Your task to perform on an android device: Search for Mexican restaurants on Maps Image 0: 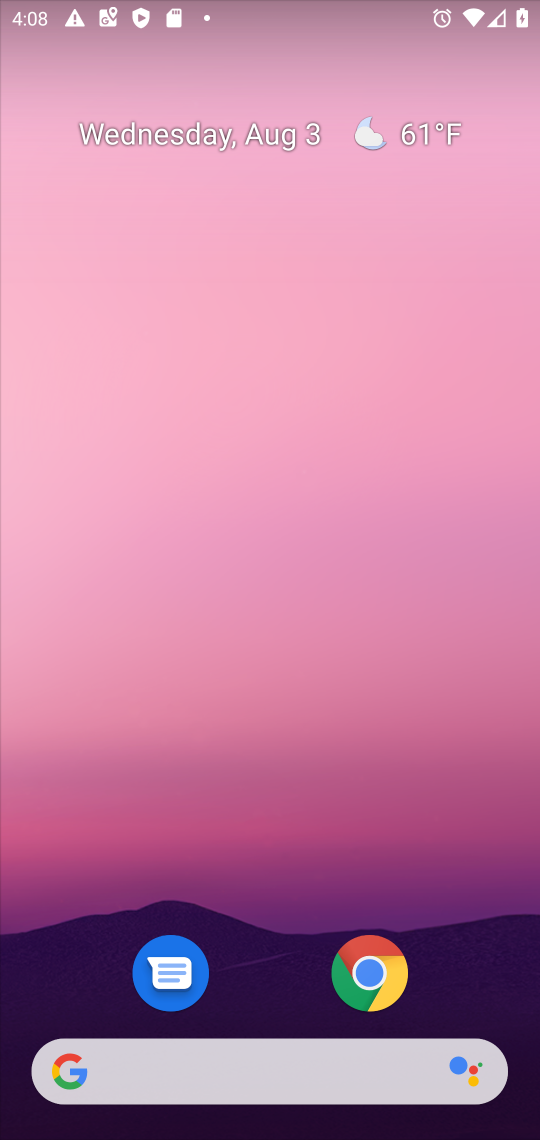
Step 0: drag from (238, 886) to (312, 61)
Your task to perform on an android device: Search for Mexican restaurants on Maps Image 1: 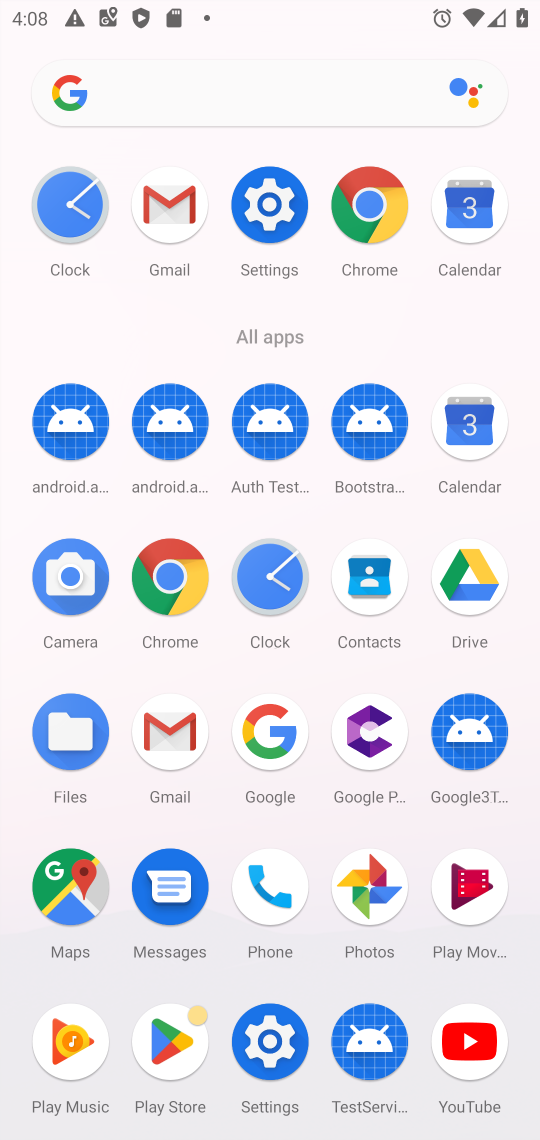
Step 1: click (74, 861)
Your task to perform on an android device: Search for Mexican restaurants on Maps Image 2: 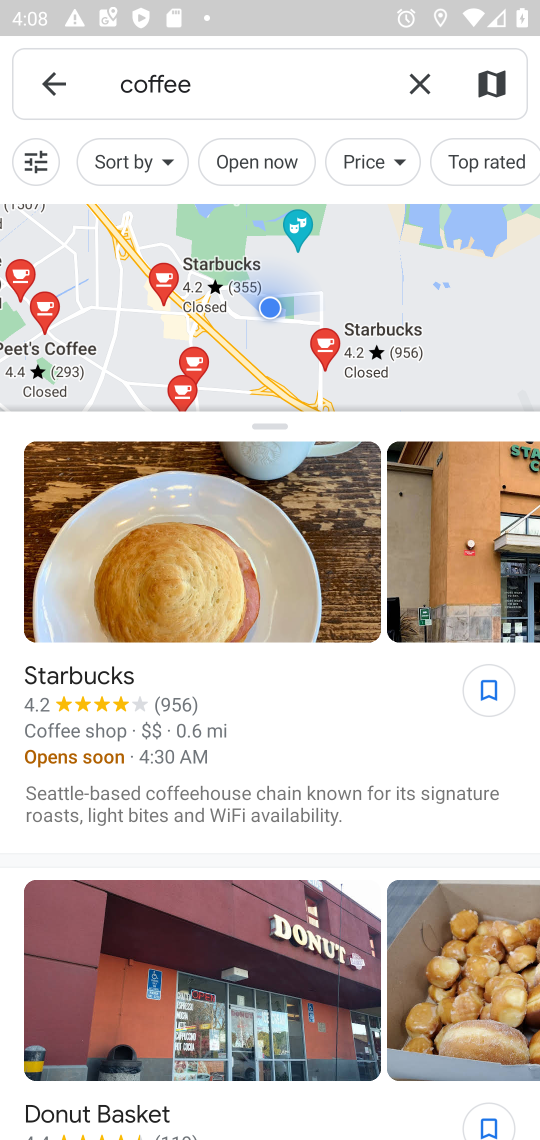
Step 2: click (422, 75)
Your task to perform on an android device: Search for Mexican restaurants on Maps Image 3: 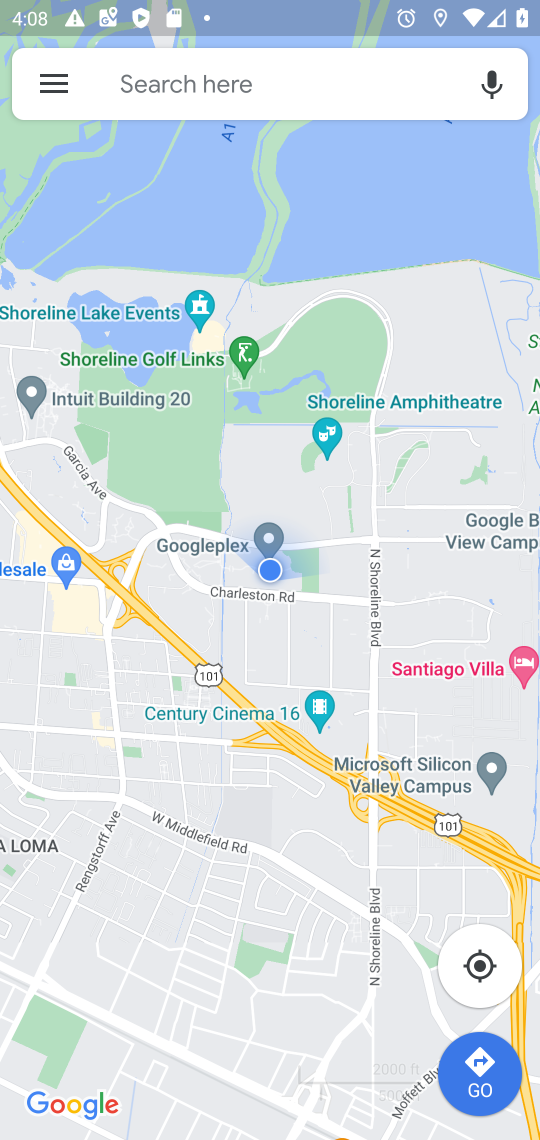
Step 3: click (352, 83)
Your task to perform on an android device: Search for Mexican restaurants on Maps Image 4: 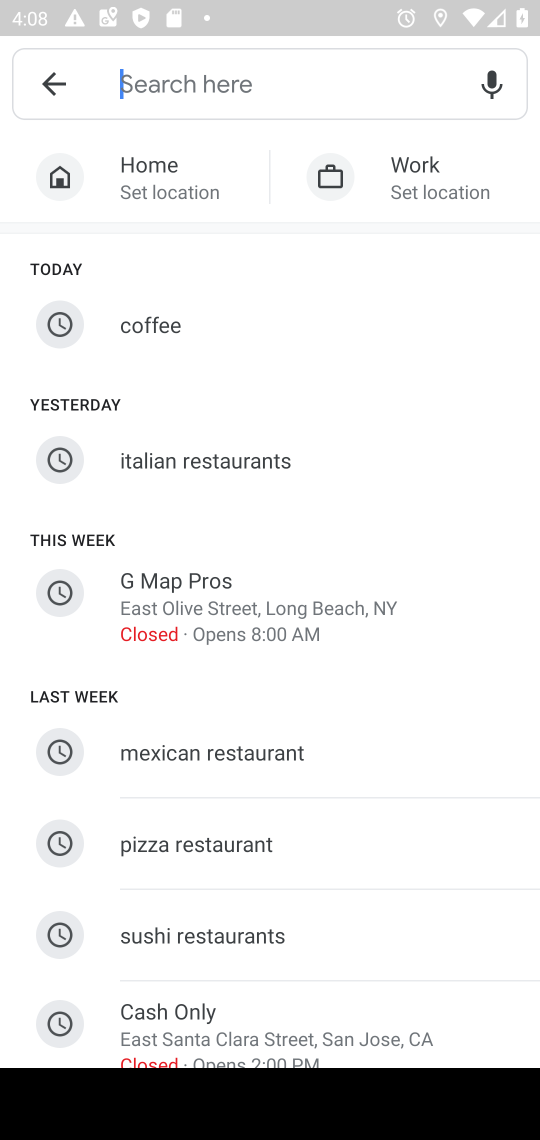
Step 4: click (252, 744)
Your task to perform on an android device: Search for Mexican restaurants on Maps Image 5: 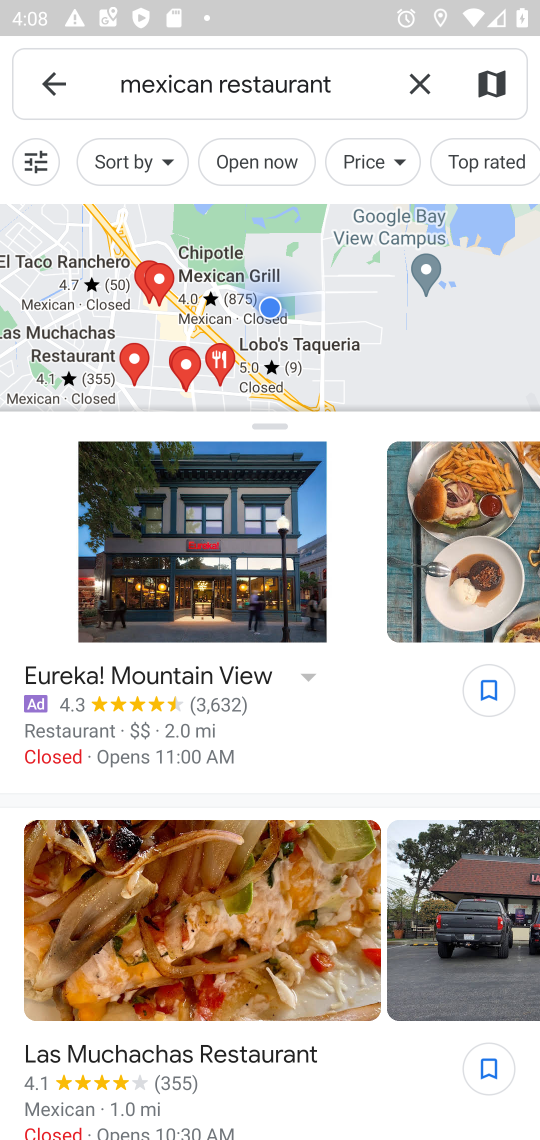
Step 5: task complete